Your task to perform on an android device: check data usage Image 0: 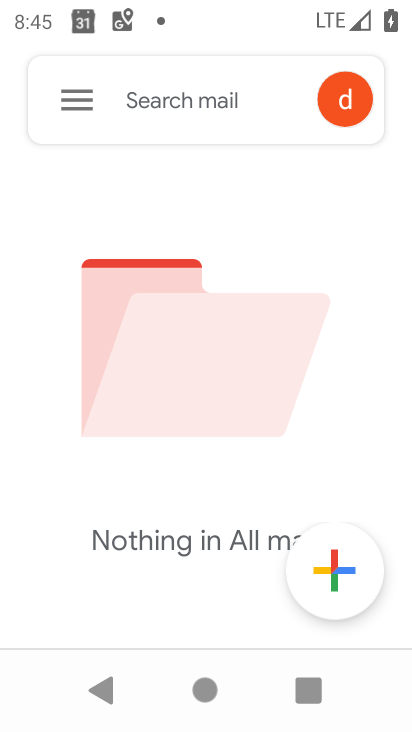
Step 0: press home button
Your task to perform on an android device: check data usage Image 1: 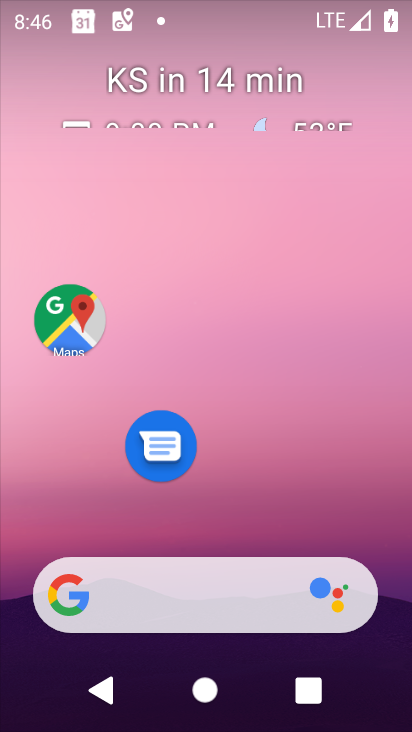
Step 1: drag from (232, 539) to (193, 0)
Your task to perform on an android device: check data usage Image 2: 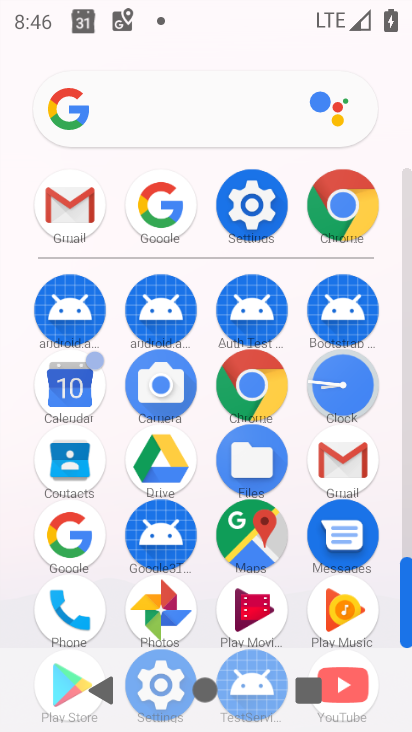
Step 2: click (218, 197)
Your task to perform on an android device: check data usage Image 3: 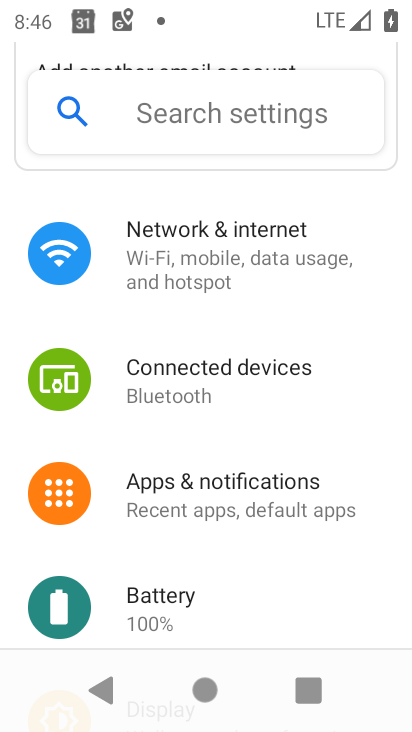
Step 3: click (221, 237)
Your task to perform on an android device: check data usage Image 4: 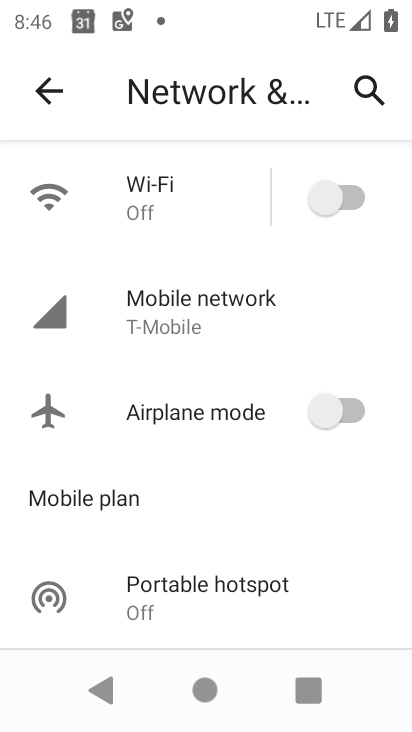
Step 4: click (207, 302)
Your task to perform on an android device: check data usage Image 5: 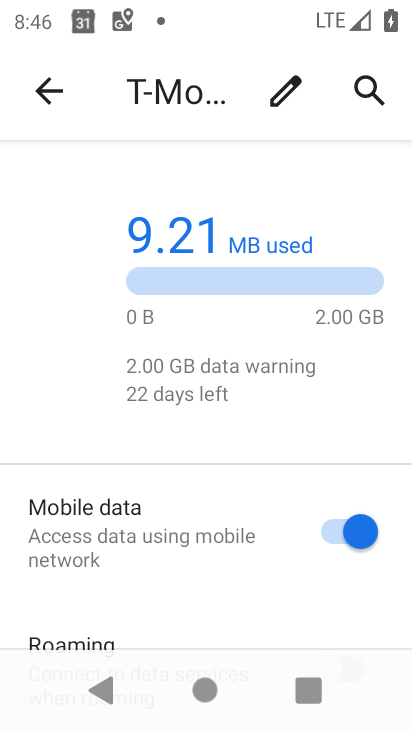
Step 5: task complete